Your task to perform on an android device: Turn on the flashlight Image 0: 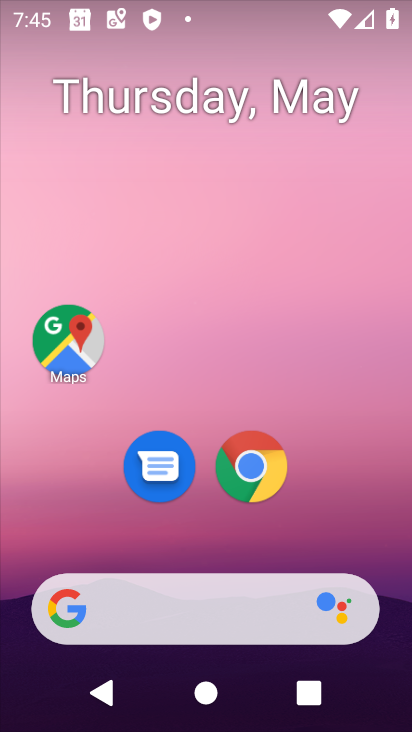
Step 0: drag from (308, 457) to (221, 69)
Your task to perform on an android device: Turn on the flashlight Image 1: 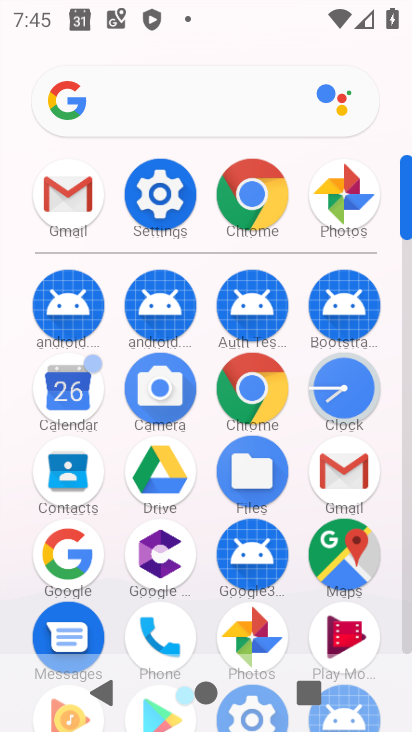
Step 1: click (161, 188)
Your task to perform on an android device: Turn on the flashlight Image 2: 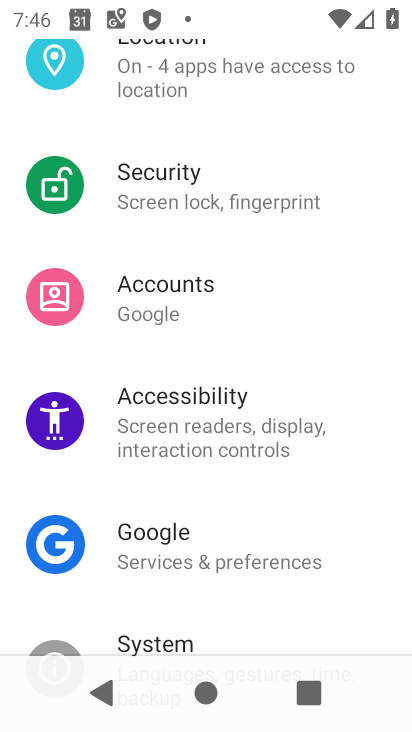
Step 2: drag from (201, 170) to (232, 555)
Your task to perform on an android device: Turn on the flashlight Image 3: 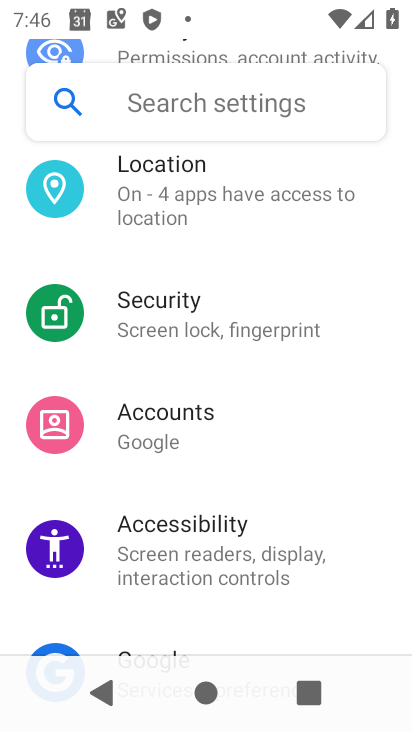
Step 3: drag from (218, 237) to (263, 691)
Your task to perform on an android device: Turn on the flashlight Image 4: 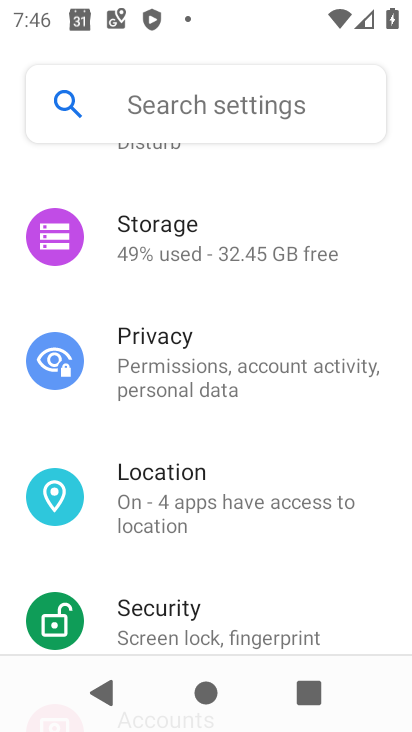
Step 4: click (168, 344)
Your task to perform on an android device: Turn on the flashlight Image 5: 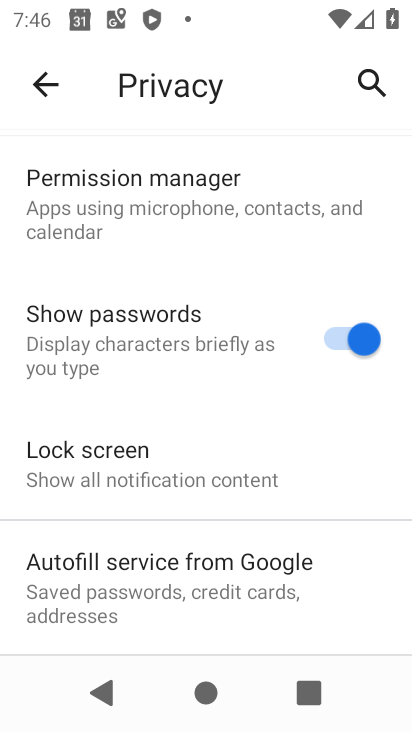
Step 5: task complete